Your task to perform on an android device: What's the weather? Image 0: 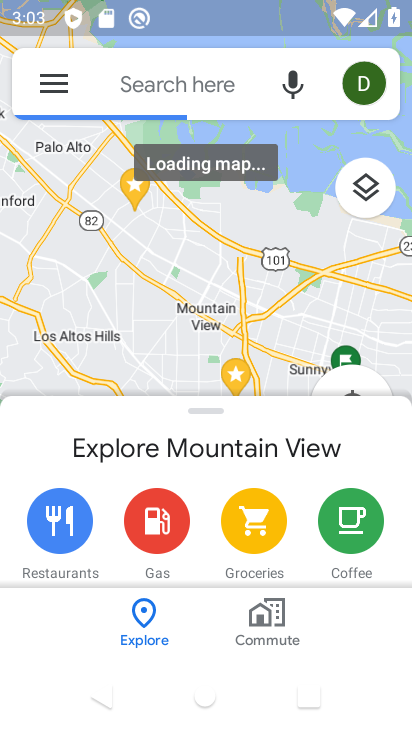
Step 0: press home button
Your task to perform on an android device: What's the weather? Image 1: 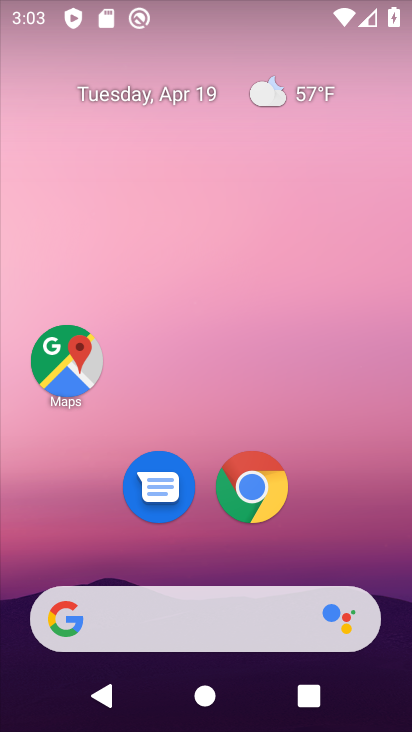
Step 1: click (257, 486)
Your task to perform on an android device: What's the weather? Image 2: 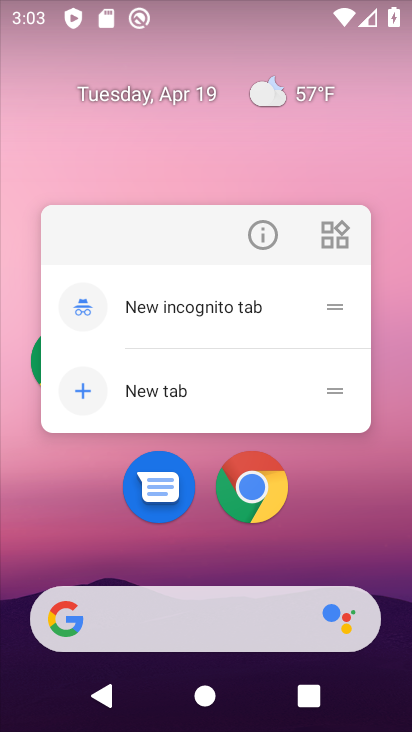
Step 2: click (268, 491)
Your task to perform on an android device: What's the weather? Image 3: 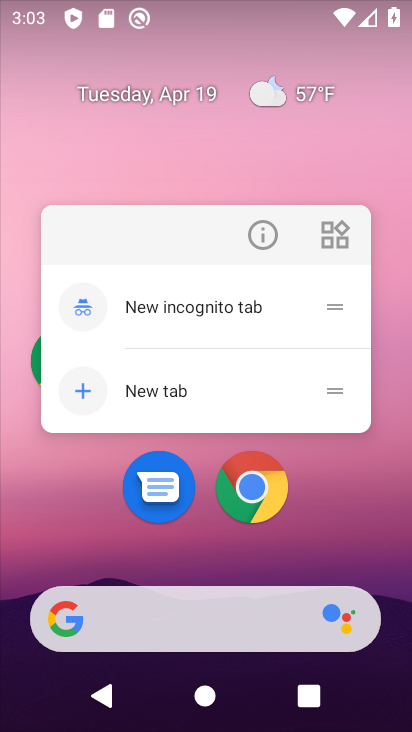
Step 3: click (267, 509)
Your task to perform on an android device: What's the weather? Image 4: 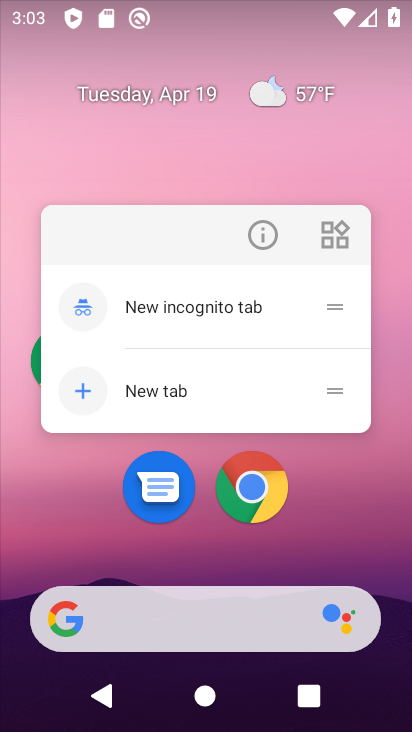
Step 4: click (261, 504)
Your task to perform on an android device: What's the weather? Image 5: 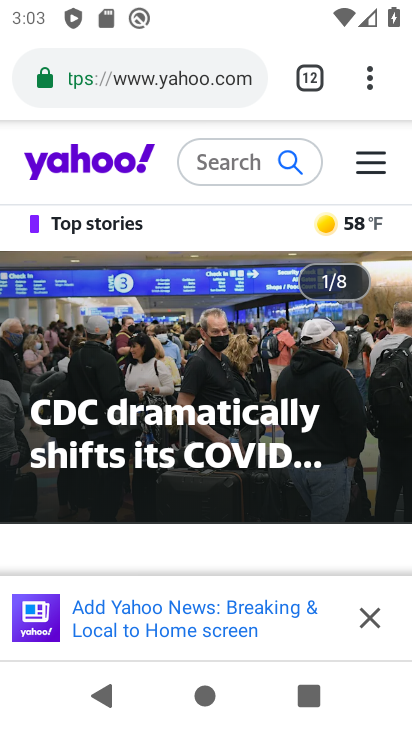
Step 5: click (206, 82)
Your task to perform on an android device: What's the weather? Image 6: 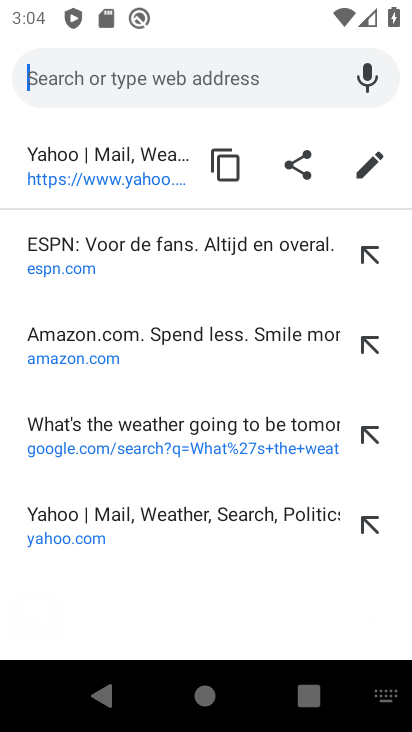
Step 6: type "what's the weather"
Your task to perform on an android device: What's the weather? Image 7: 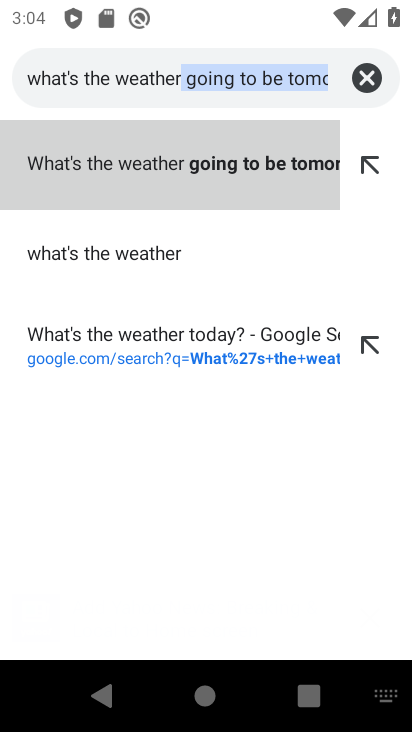
Step 7: click (175, 82)
Your task to perform on an android device: What's the weather? Image 8: 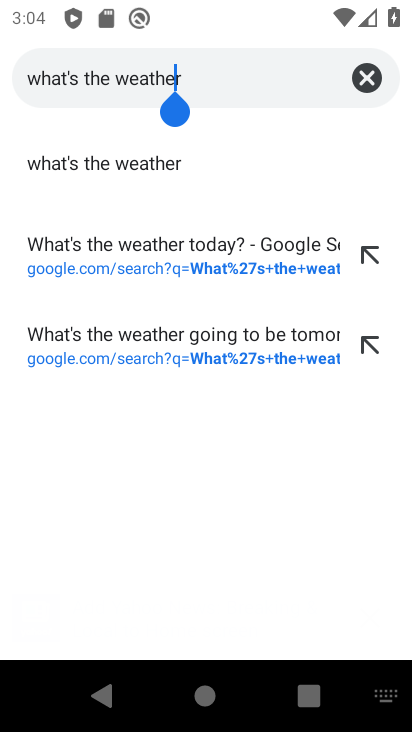
Step 8: click (183, 88)
Your task to perform on an android device: What's the weather? Image 9: 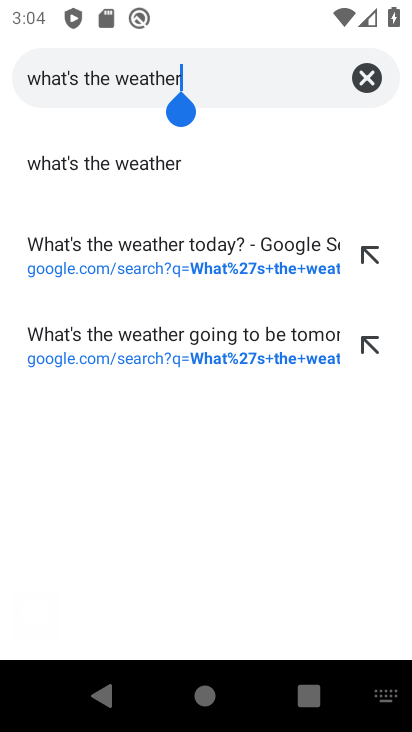
Step 9: click (186, 78)
Your task to perform on an android device: What's the weather? Image 10: 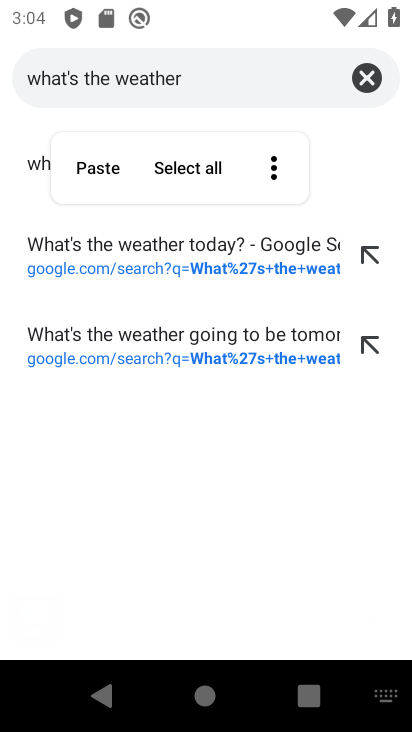
Step 10: click (35, 161)
Your task to perform on an android device: What's the weather? Image 11: 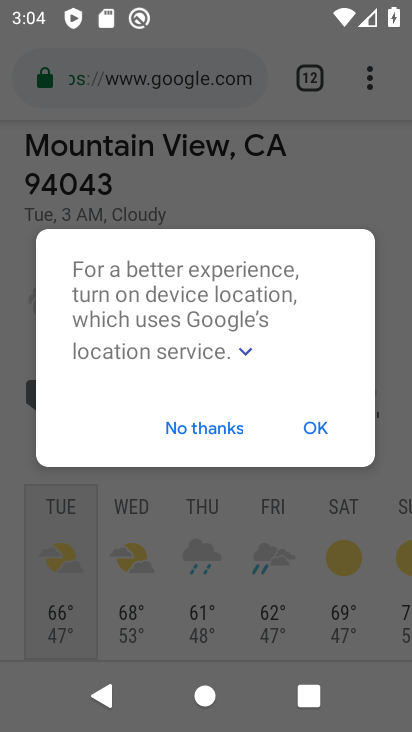
Step 11: click (307, 429)
Your task to perform on an android device: What's the weather? Image 12: 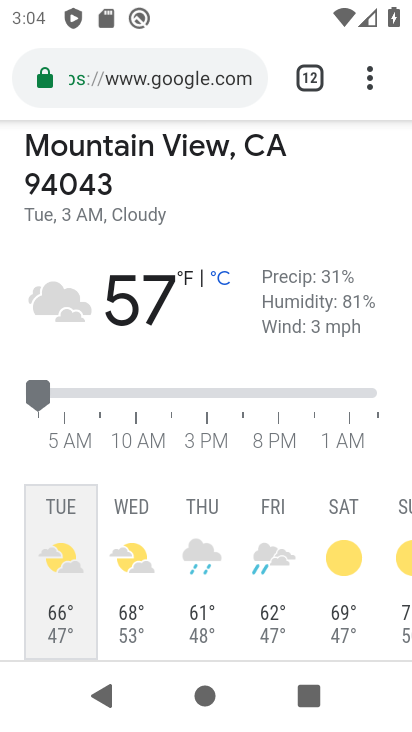
Step 12: task complete